Your task to perform on an android device: delete browsing data in the chrome app Image 0: 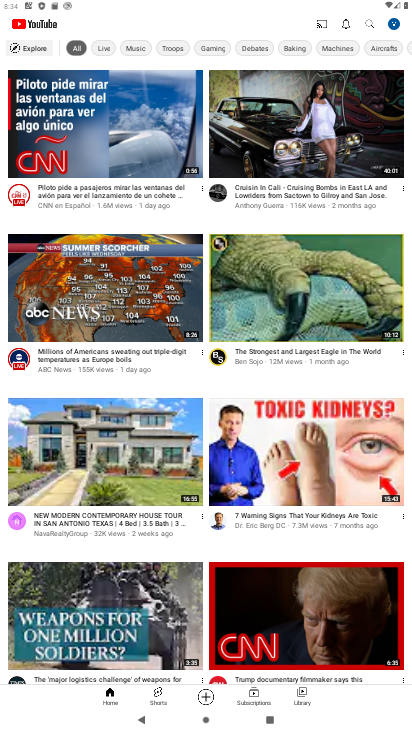
Step 0: press home button
Your task to perform on an android device: delete browsing data in the chrome app Image 1: 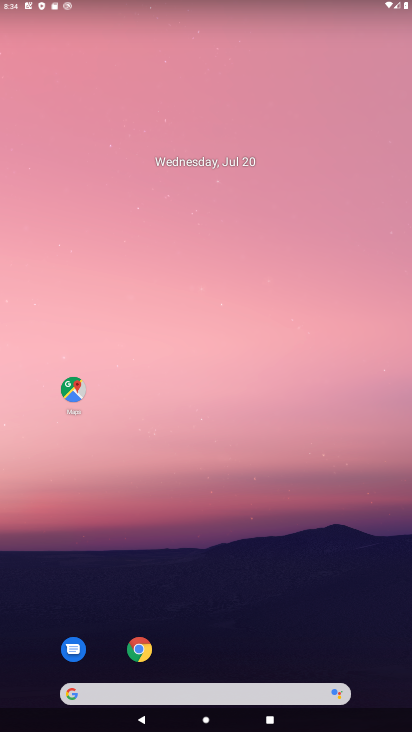
Step 1: click (142, 651)
Your task to perform on an android device: delete browsing data in the chrome app Image 2: 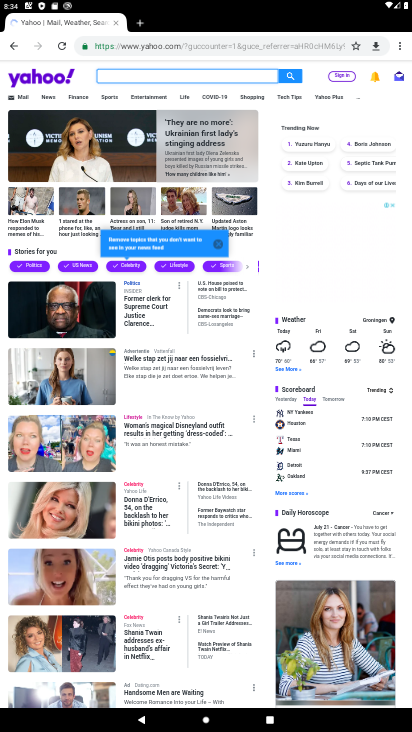
Step 2: click (400, 46)
Your task to perform on an android device: delete browsing data in the chrome app Image 3: 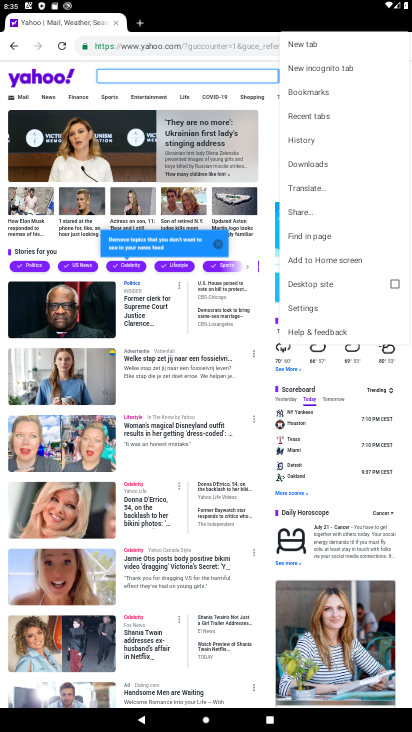
Step 3: click (303, 308)
Your task to perform on an android device: delete browsing data in the chrome app Image 4: 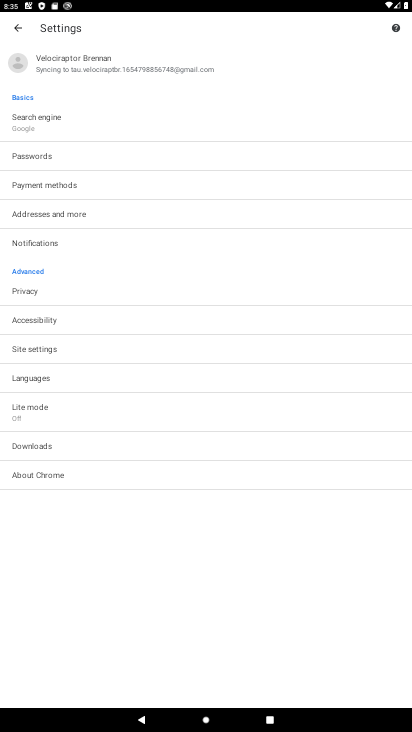
Step 4: click (28, 292)
Your task to perform on an android device: delete browsing data in the chrome app Image 5: 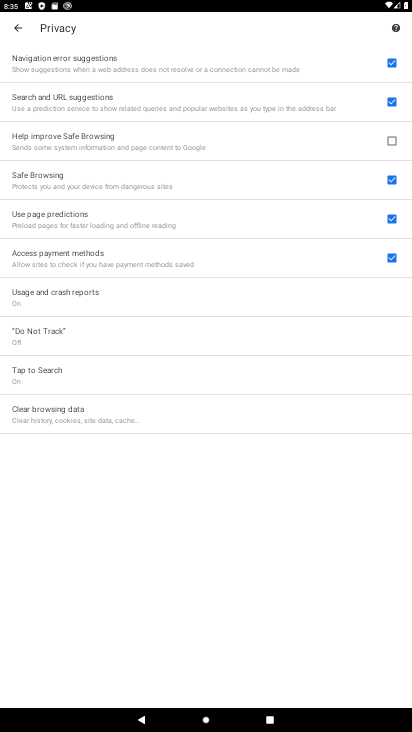
Step 5: click (48, 409)
Your task to perform on an android device: delete browsing data in the chrome app Image 6: 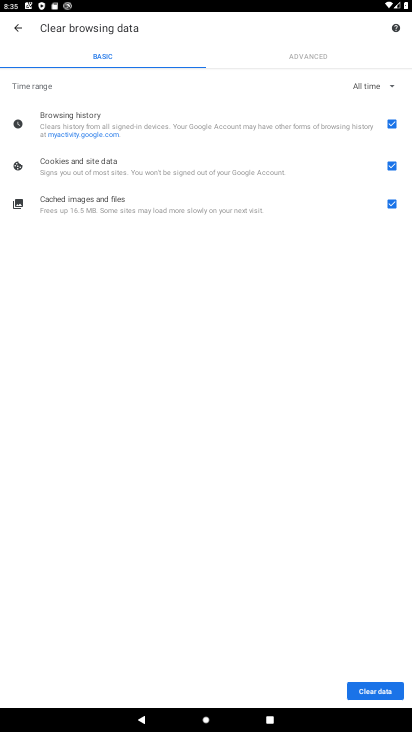
Step 6: click (378, 691)
Your task to perform on an android device: delete browsing data in the chrome app Image 7: 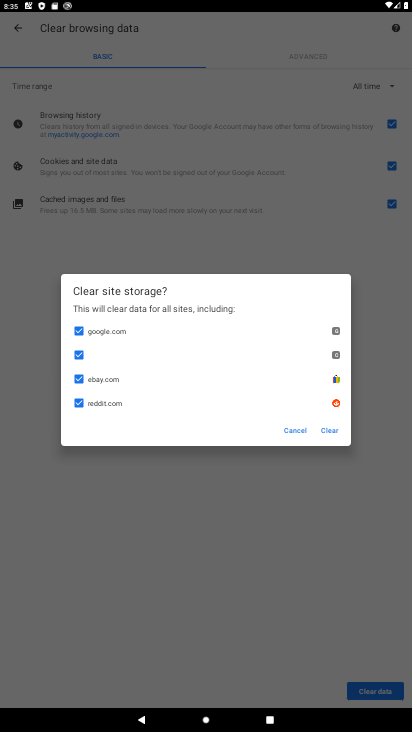
Step 7: click (330, 426)
Your task to perform on an android device: delete browsing data in the chrome app Image 8: 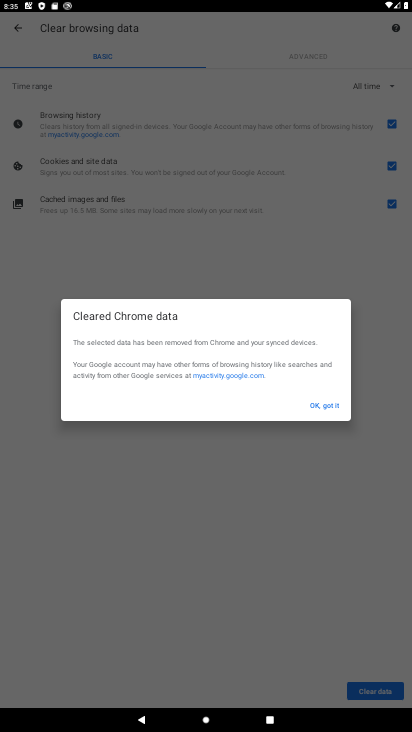
Step 8: click (327, 403)
Your task to perform on an android device: delete browsing data in the chrome app Image 9: 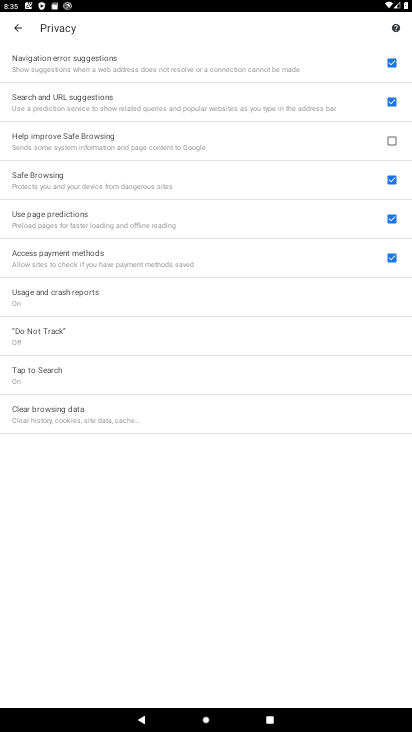
Step 9: task complete